Your task to perform on an android device: find photos in the google photos app Image 0: 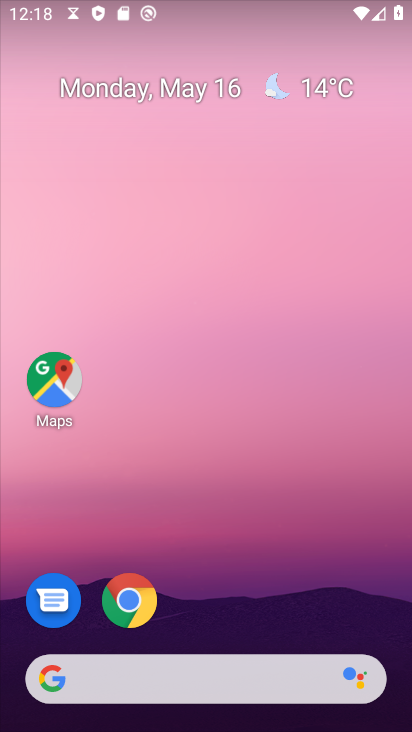
Step 0: drag from (244, 570) to (265, 4)
Your task to perform on an android device: find photos in the google photos app Image 1: 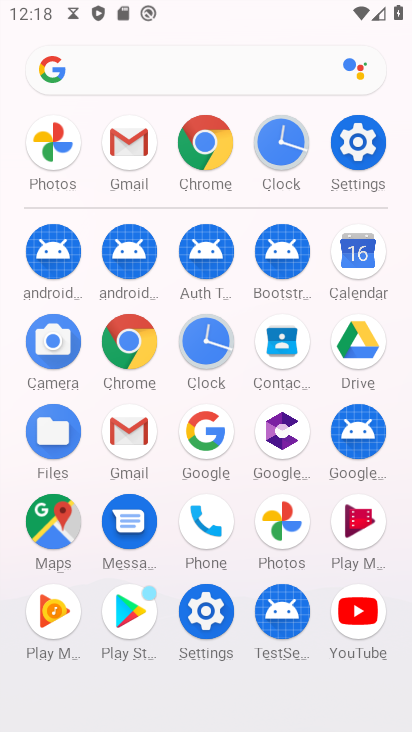
Step 1: click (279, 518)
Your task to perform on an android device: find photos in the google photos app Image 2: 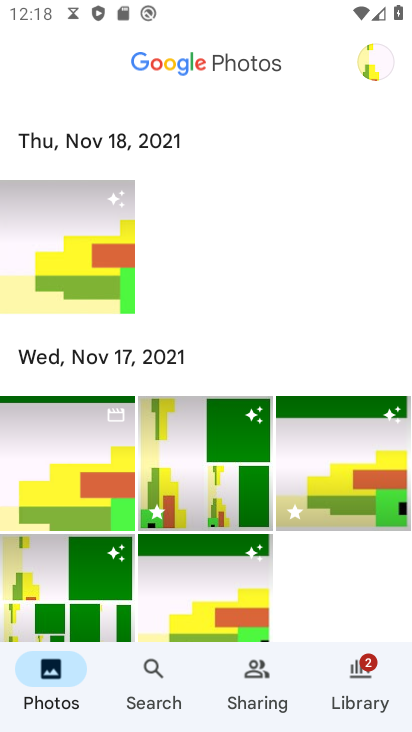
Step 2: task complete